Your task to perform on an android device: Open Yahoo.com Image 0: 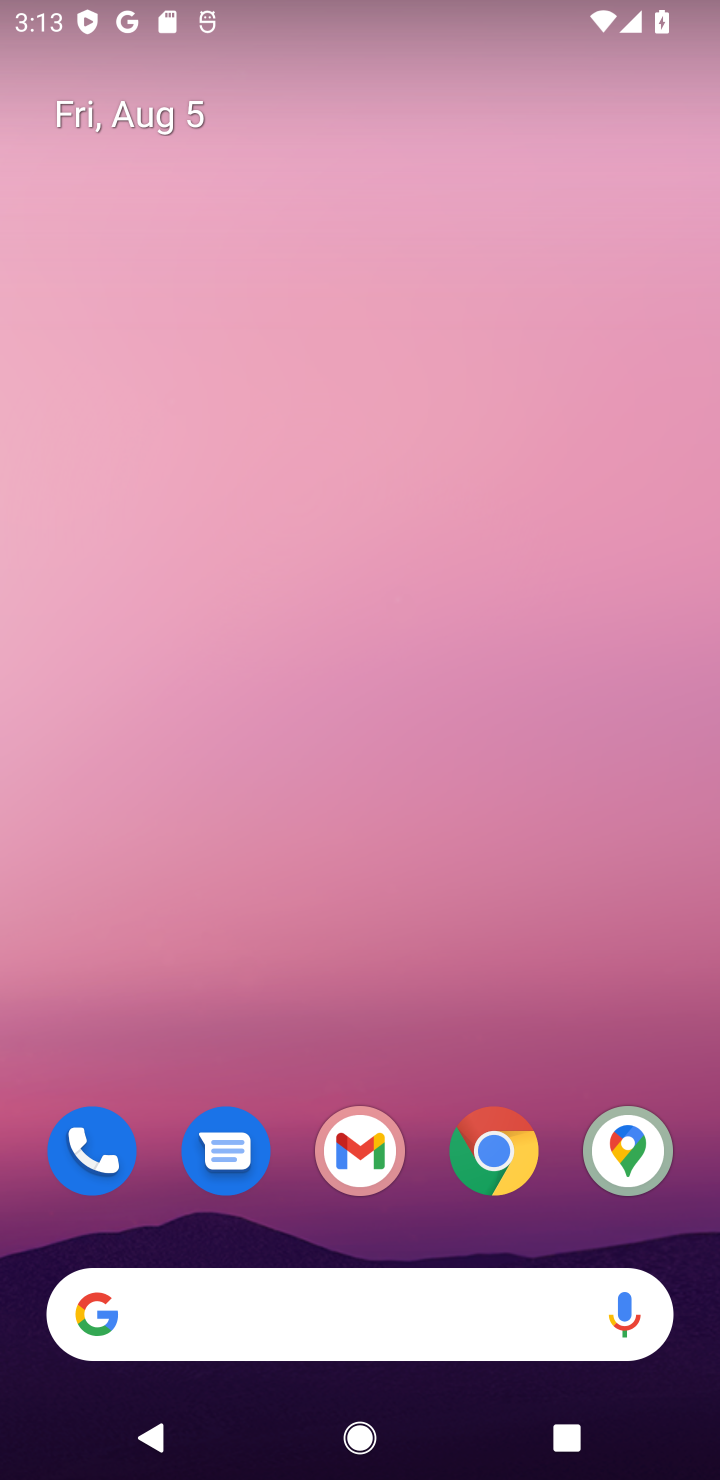
Step 0: click (491, 1167)
Your task to perform on an android device: Open Yahoo.com Image 1: 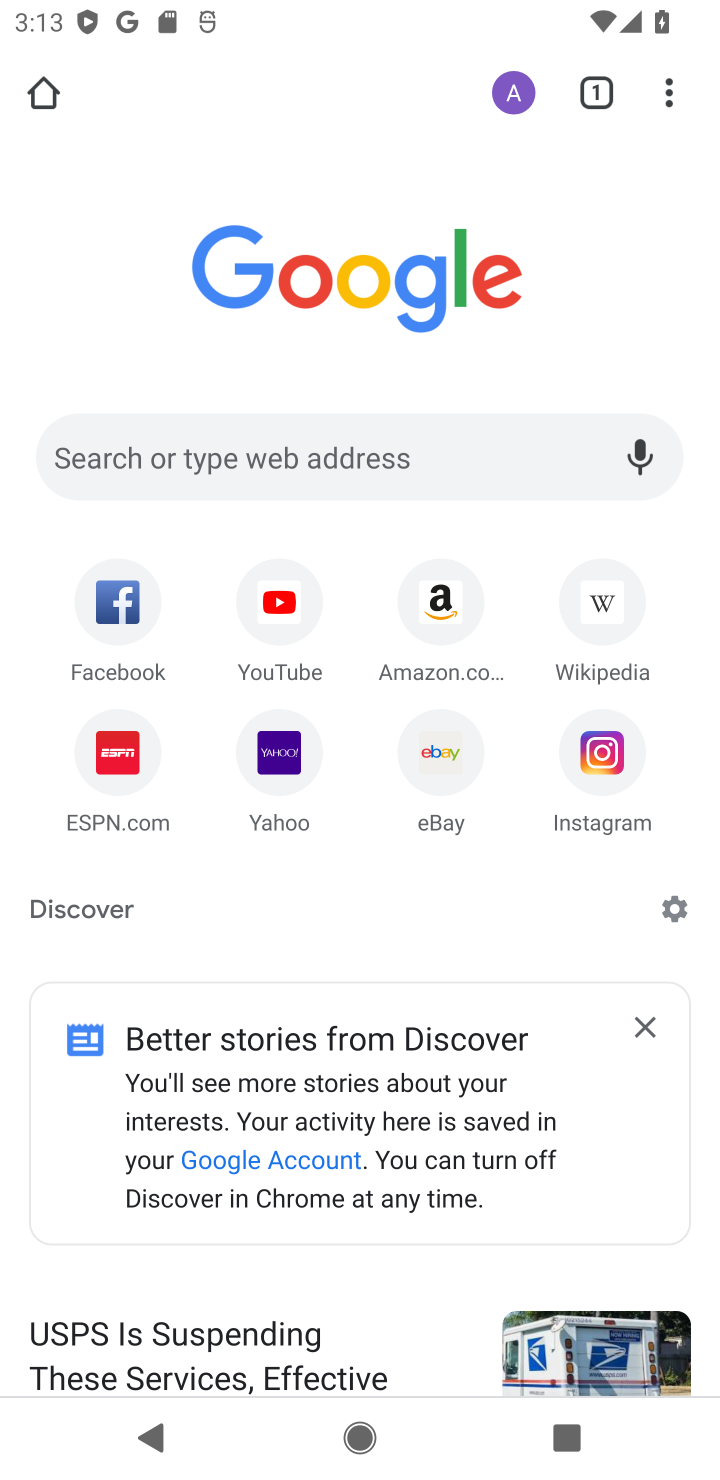
Step 1: click (269, 752)
Your task to perform on an android device: Open Yahoo.com Image 2: 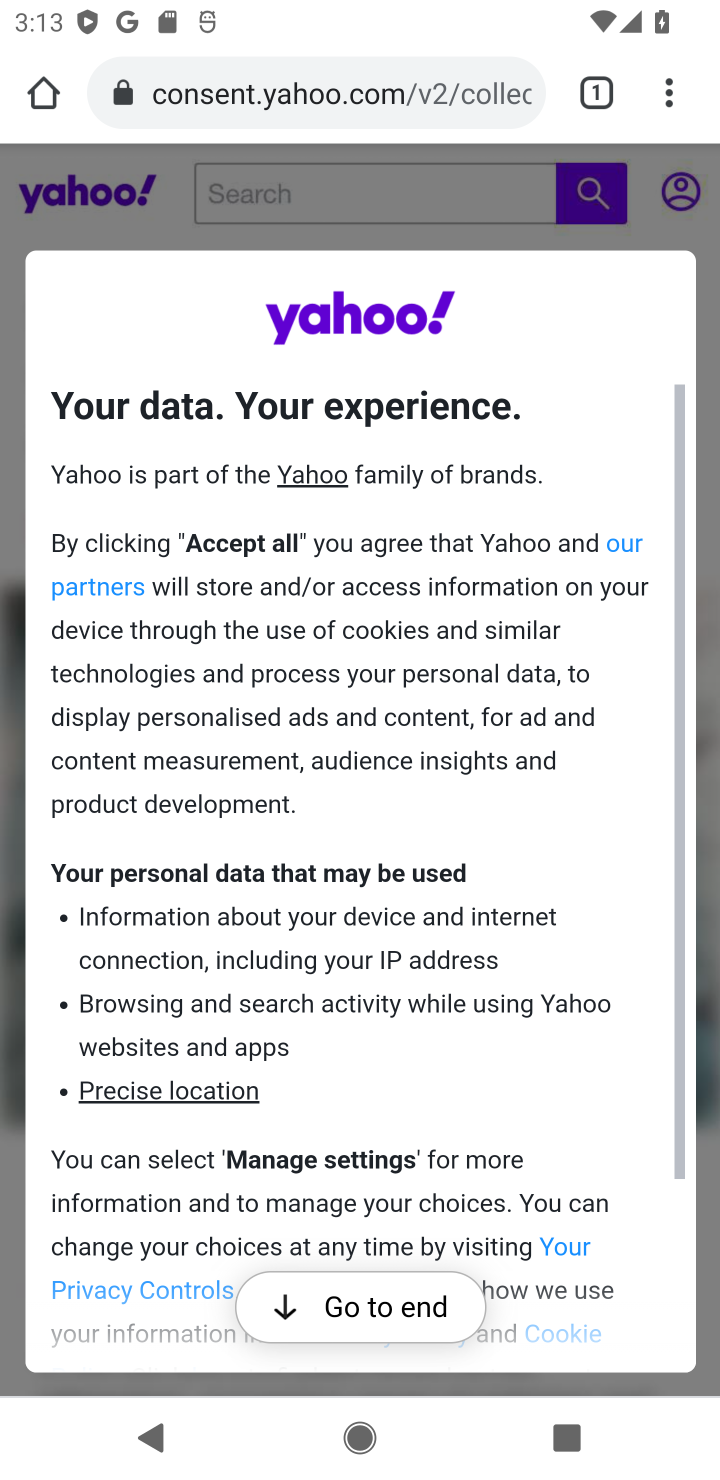
Step 2: task complete